Your task to perform on an android device: turn off notifications in google photos Image 0: 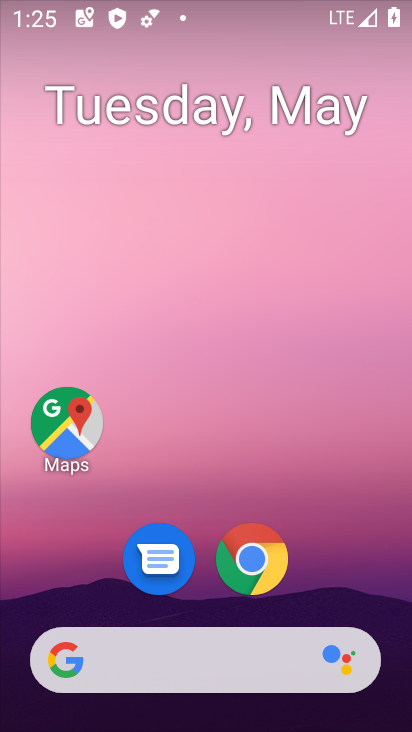
Step 0: drag from (355, 590) to (192, 0)
Your task to perform on an android device: turn off notifications in google photos Image 1: 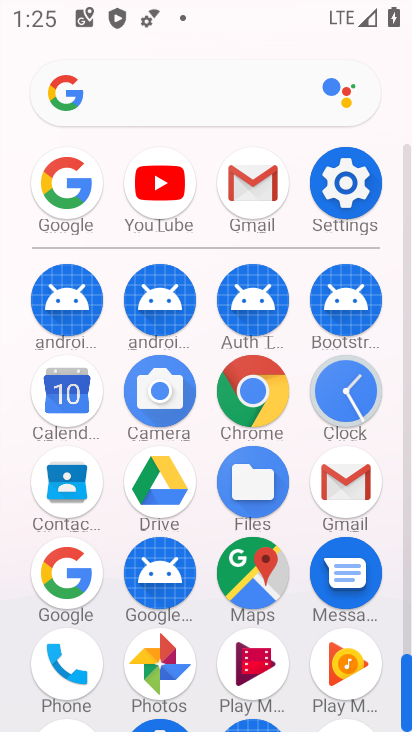
Step 1: click (162, 655)
Your task to perform on an android device: turn off notifications in google photos Image 2: 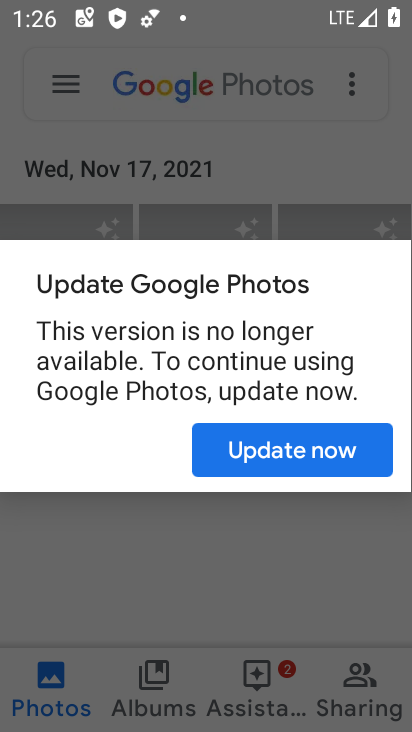
Step 2: click (272, 456)
Your task to perform on an android device: turn off notifications in google photos Image 3: 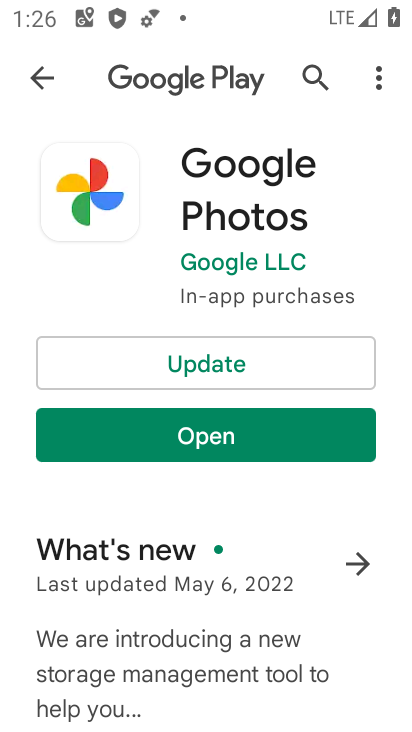
Step 3: click (198, 363)
Your task to perform on an android device: turn off notifications in google photos Image 4: 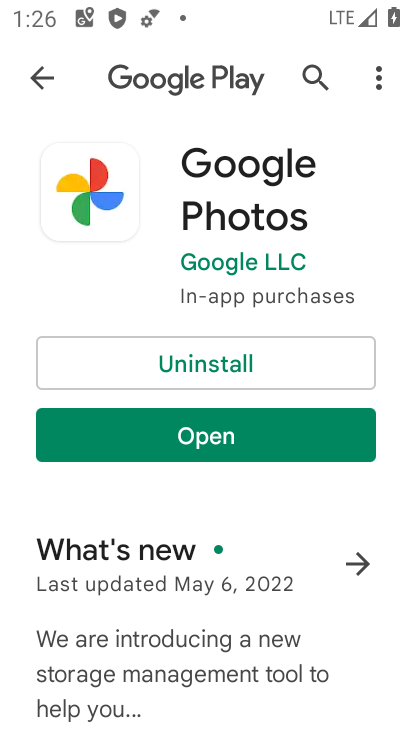
Step 4: click (311, 431)
Your task to perform on an android device: turn off notifications in google photos Image 5: 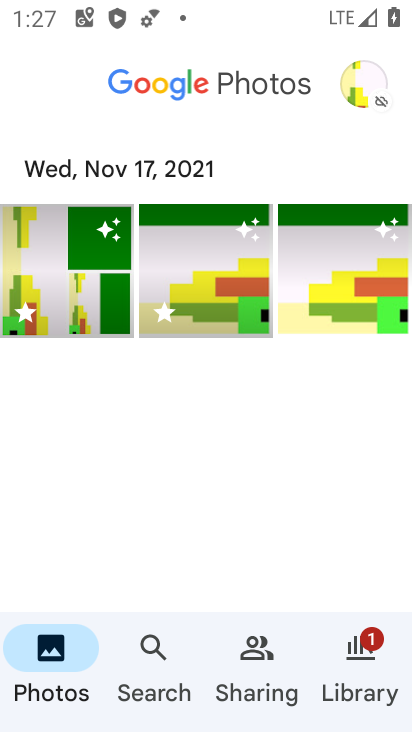
Step 5: click (368, 83)
Your task to perform on an android device: turn off notifications in google photos Image 6: 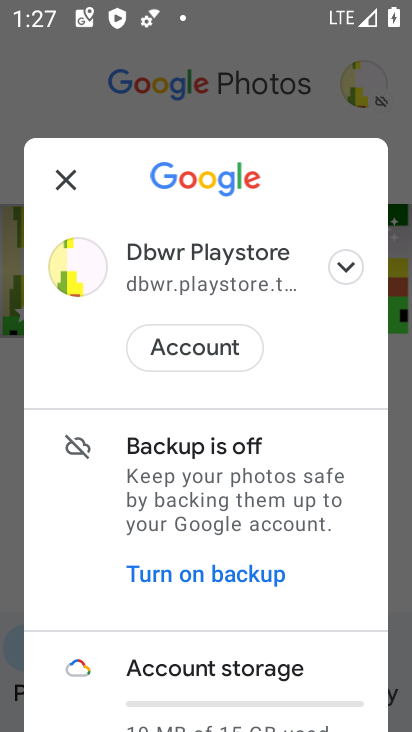
Step 6: drag from (213, 622) to (158, 162)
Your task to perform on an android device: turn off notifications in google photos Image 7: 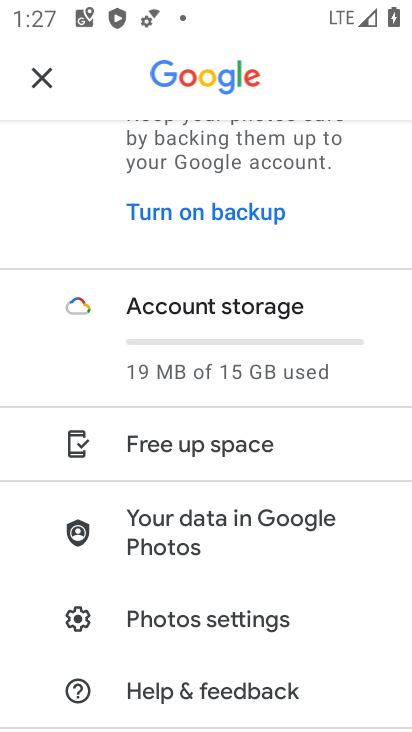
Step 7: click (177, 624)
Your task to perform on an android device: turn off notifications in google photos Image 8: 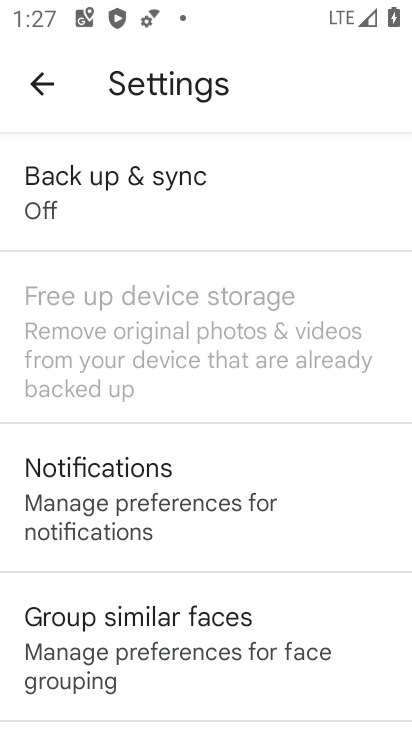
Step 8: click (134, 512)
Your task to perform on an android device: turn off notifications in google photos Image 9: 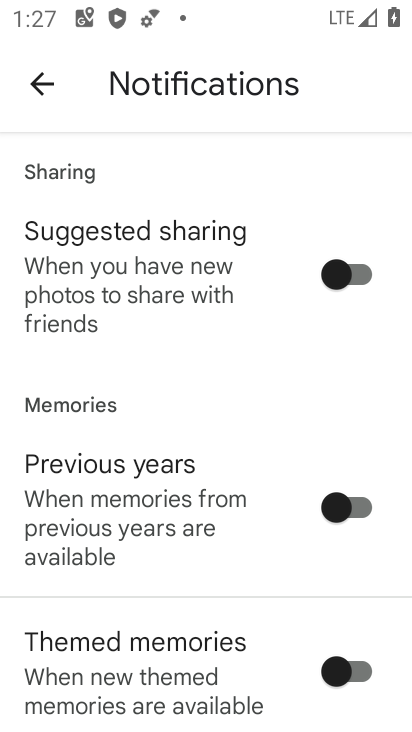
Step 9: task complete